Your task to perform on an android device: set default search engine in the chrome app Image 0: 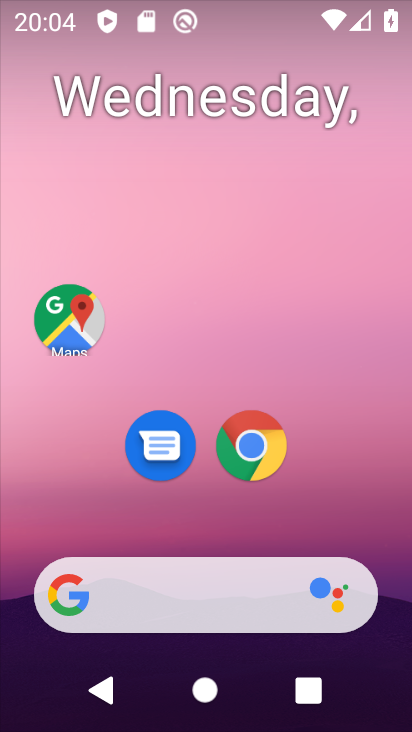
Step 0: drag from (291, 537) to (285, 241)
Your task to perform on an android device: set default search engine in the chrome app Image 1: 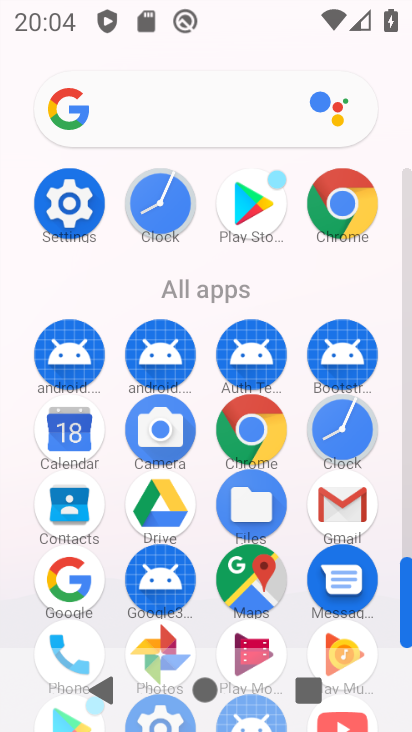
Step 1: click (350, 190)
Your task to perform on an android device: set default search engine in the chrome app Image 2: 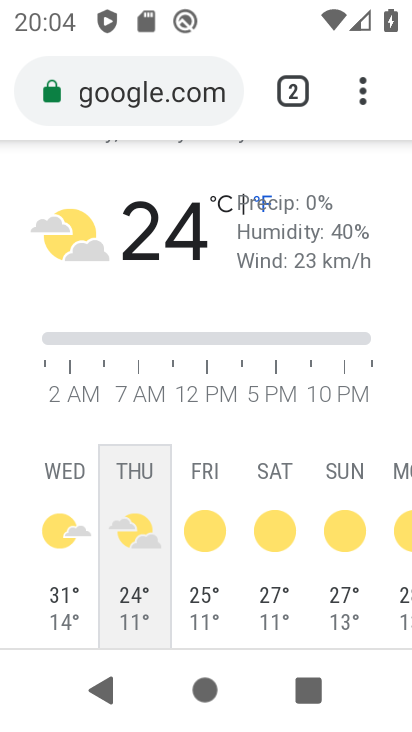
Step 2: click (356, 96)
Your task to perform on an android device: set default search engine in the chrome app Image 3: 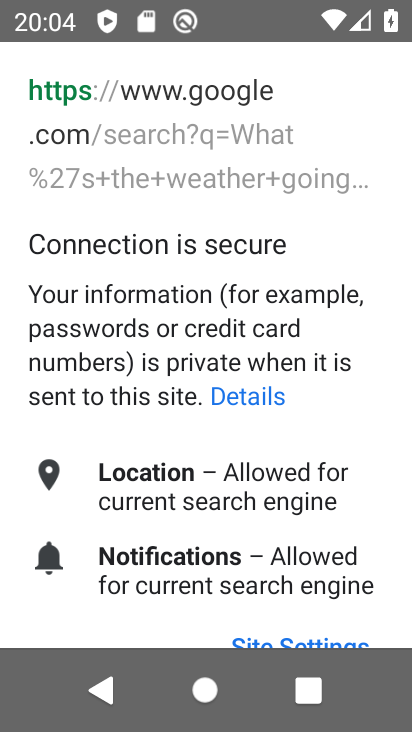
Step 3: press back button
Your task to perform on an android device: set default search engine in the chrome app Image 4: 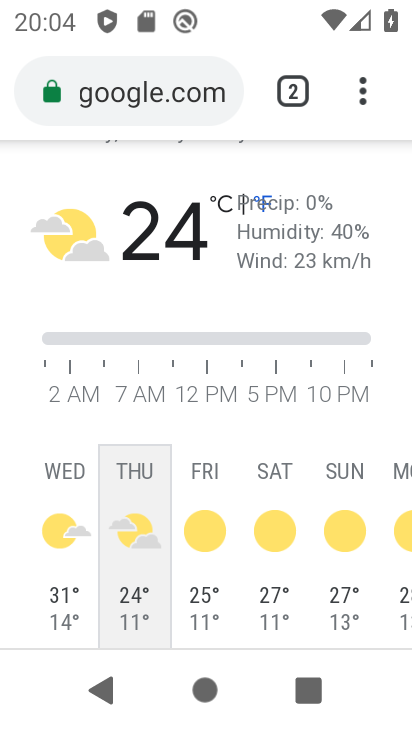
Step 4: click (366, 87)
Your task to perform on an android device: set default search engine in the chrome app Image 5: 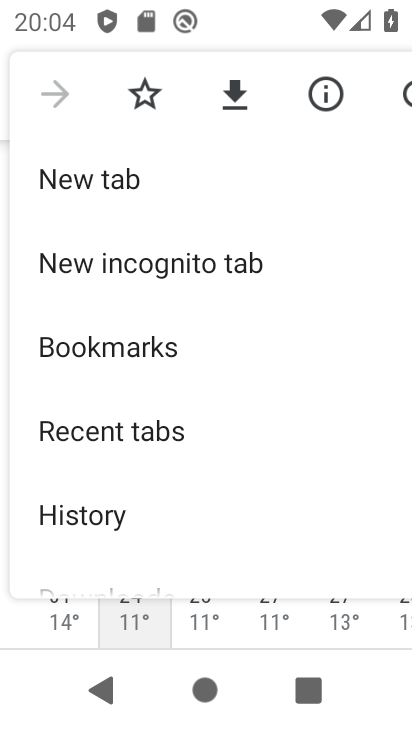
Step 5: drag from (239, 522) to (263, 134)
Your task to perform on an android device: set default search engine in the chrome app Image 6: 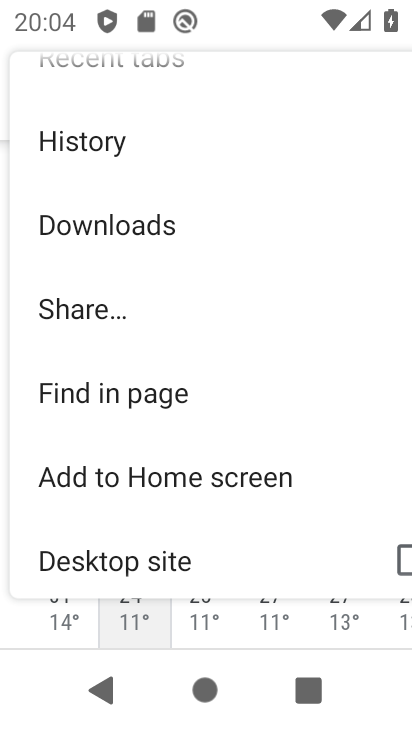
Step 6: drag from (152, 503) to (266, 252)
Your task to perform on an android device: set default search engine in the chrome app Image 7: 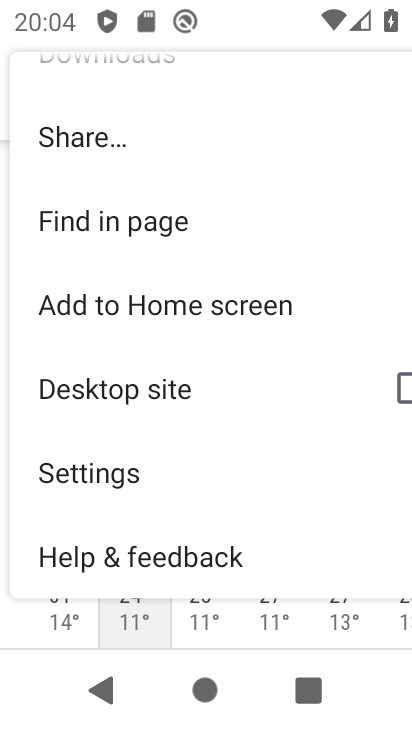
Step 7: click (114, 468)
Your task to perform on an android device: set default search engine in the chrome app Image 8: 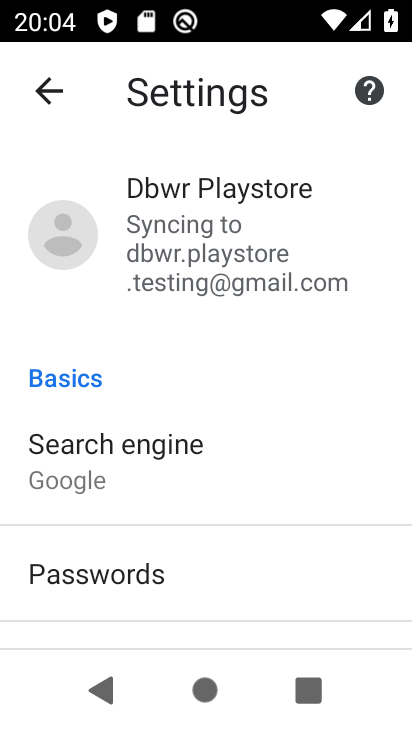
Step 8: drag from (198, 572) to (245, 223)
Your task to perform on an android device: set default search engine in the chrome app Image 9: 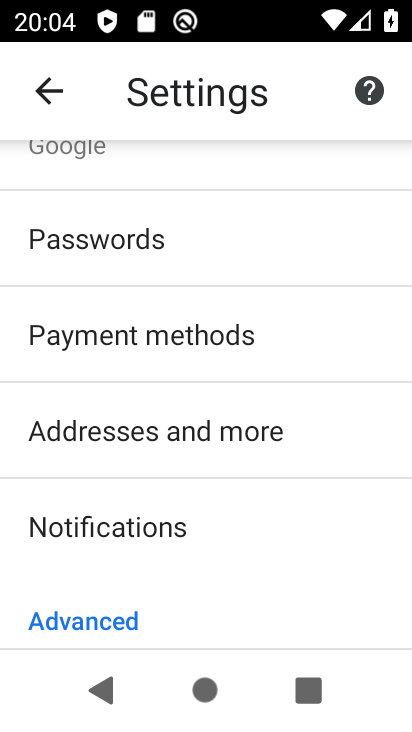
Step 9: drag from (187, 612) to (296, 258)
Your task to perform on an android device: set default search engine in the chrome app Image 10: 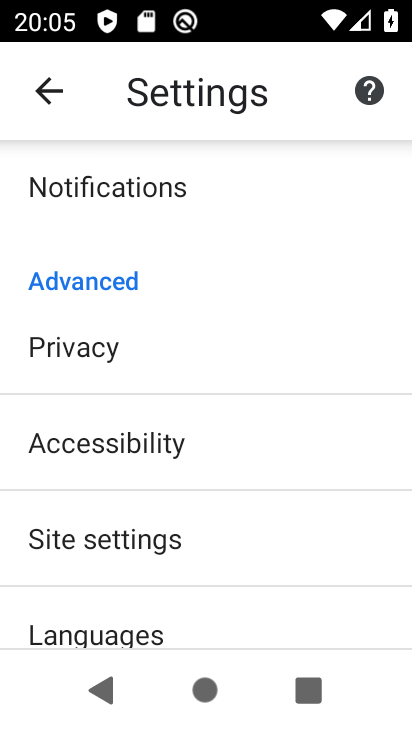
Step 10: drag from (239, 585) to (311, 402)
Your task to perform on an android device: set default search engine in the chrome app Image 11: 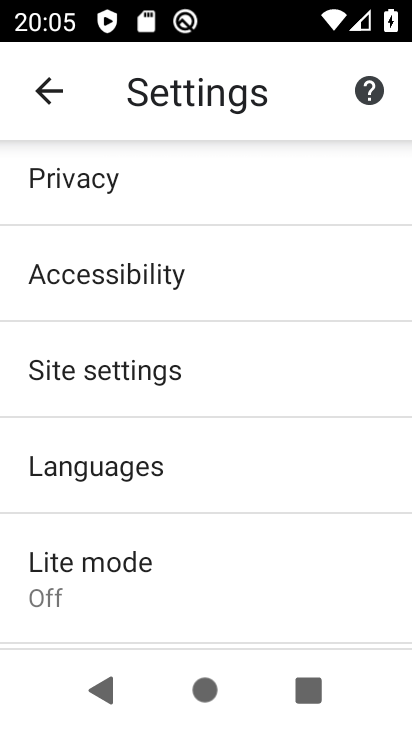
Step 11: drag from (192, 238) to (181, 669)
Your task to perform on an android device: set default search engine in the chrome app Image 12: 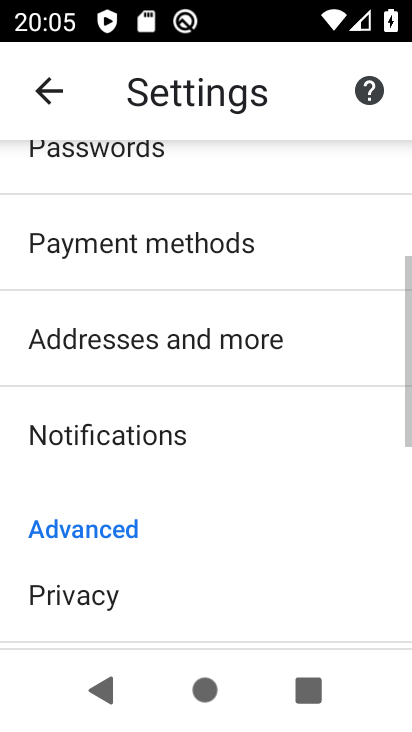
Step 12: drag from (172, 277) to (199, 668)
Your task to perform on an android device: set default search engine in the chrome app Image 13: 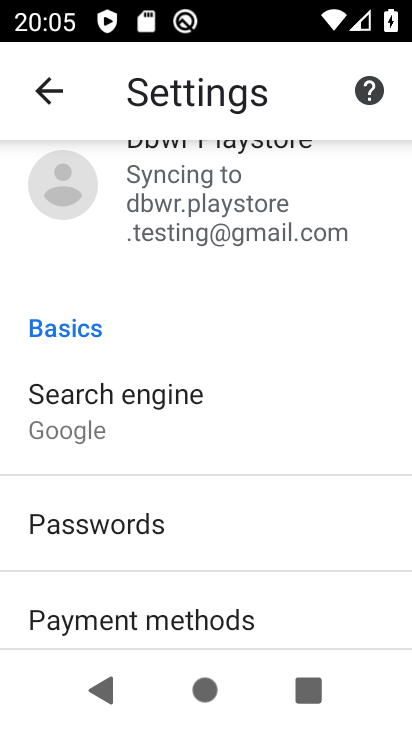
Step 13: click (150, 381)
Your task to perform on an android device: set default search engine in the chrome app Image 14: 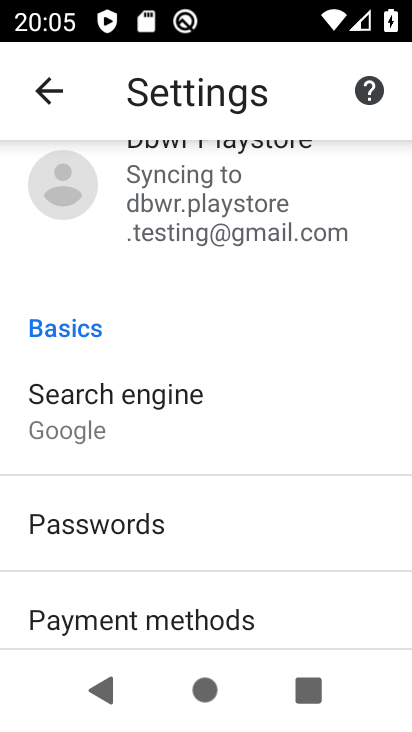
Step 14: click (146, 415)
Your task to perform on an android device: set default search engine in the chrome app Image 15: 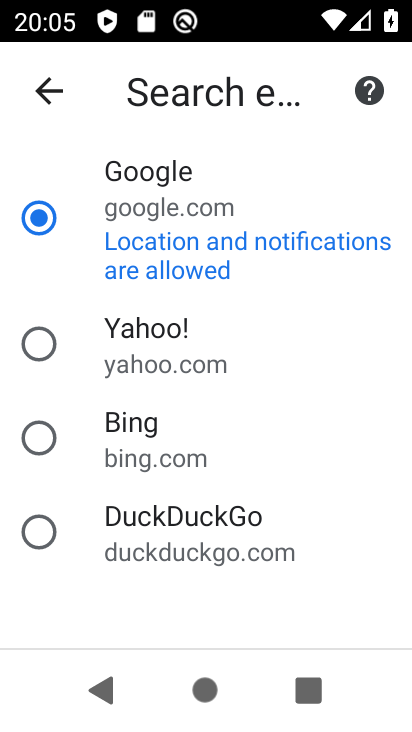
Step 15: click (144, 430)
Your task to perform on an android device: set default search engine in the chrome app Image 16: 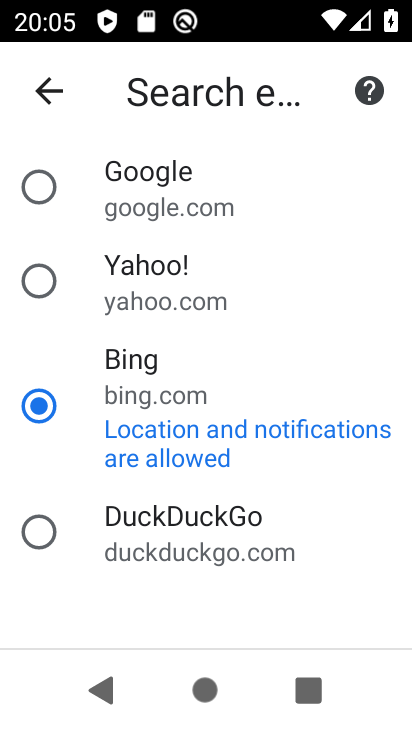
Step 16: task complete